Your task to perform on an android device: find which apps use the phone's location Image 0: 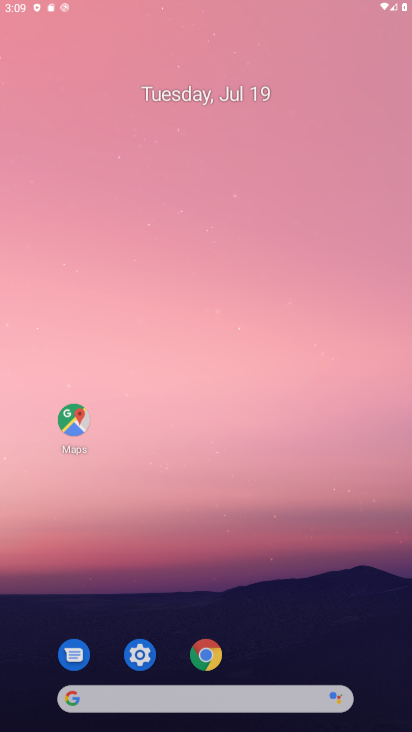
Step 0: click (190, 224)
Your task to perform on an android device: find which apps use the phone's location Image 1: 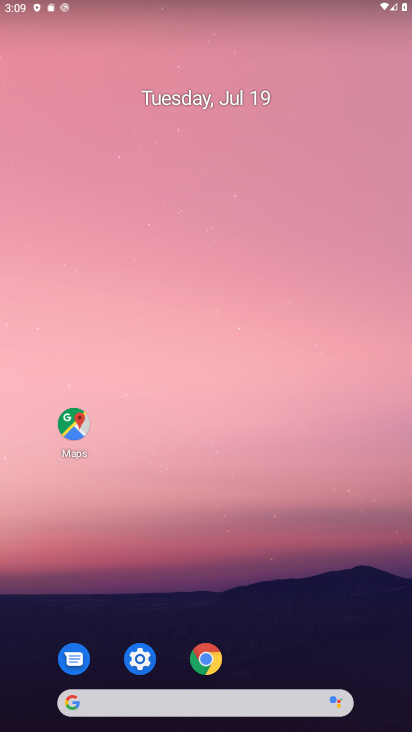
Step 1: drag from (245, 692) to (167, 254)
Your task to perform on an android device: find which apps use the phone's location Image 2: 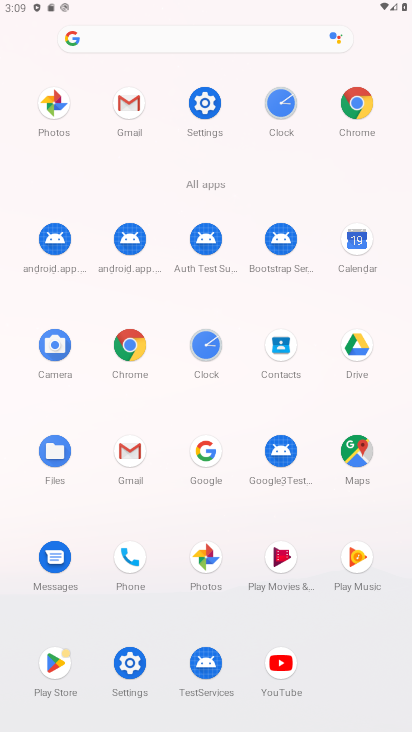
Step 2: click (203, 107)
Your task to perform on an android device: find which apps use the phone's location Image 3: 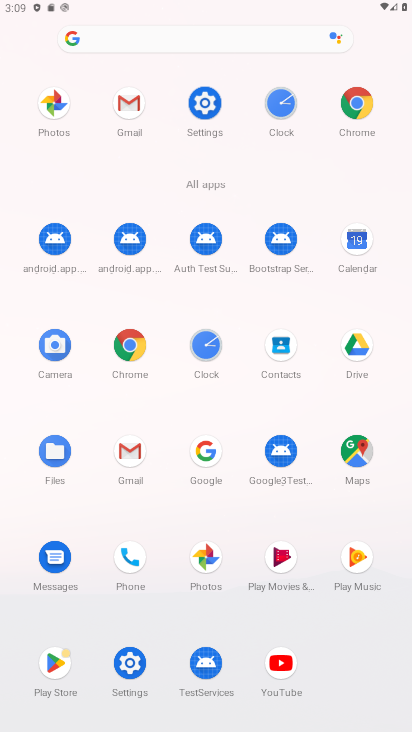
Step 3: click (199, 108)
Your task to perform on an android device: find which apps use the phone's location Image 4: 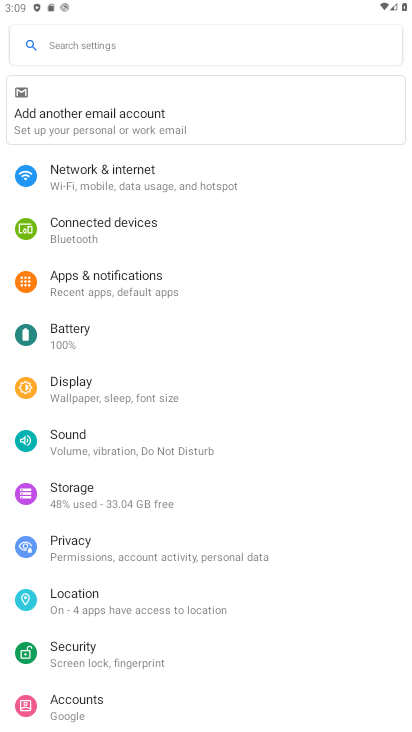
Step 4: click (74, 601)
Your task to perform on an android device: find which apps use the phone's location Image 5: 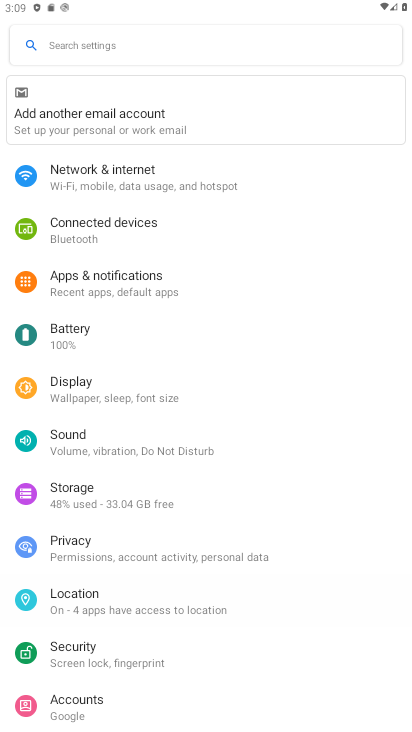
Step 5: click (90, 598)
Your task to perform on an android device: find which apps use the phone's location Image 6: 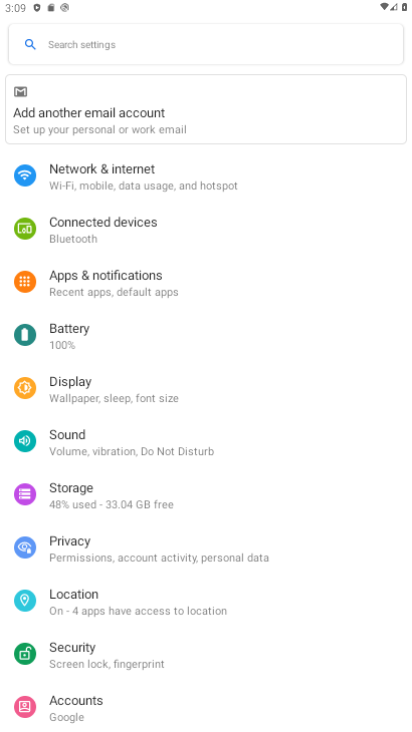
Step 6: click (94, 601)
Your task to perform on an android device: find which apps use the phone's location Image 7: 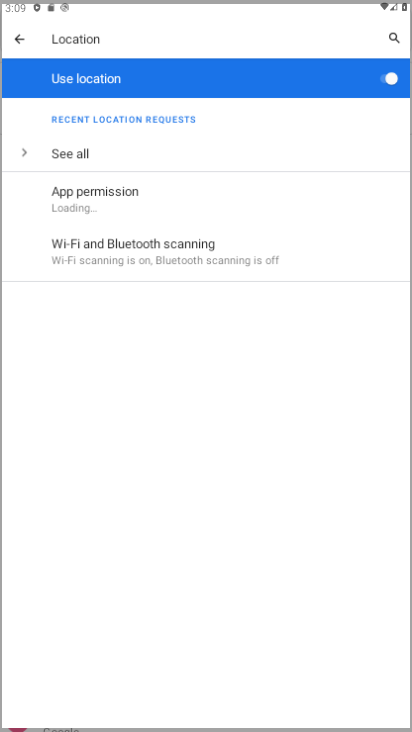
Step 7: click (110, 607)
Your task to perform on an android device: find which apps use the phone's location Image 8: 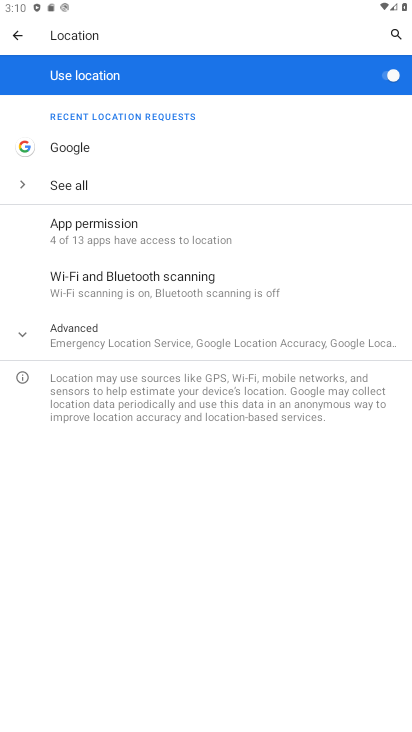
Step 8: click (85, 337)
Your task to perform on an android device: find which apps use the phone's location Image 9: 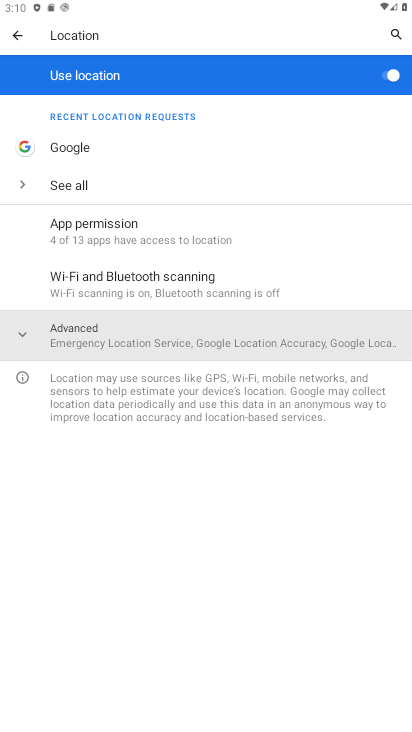
Step 9: click (83, 336)
Your task to perform on an android device: find which apps use the phone's location Image 10: 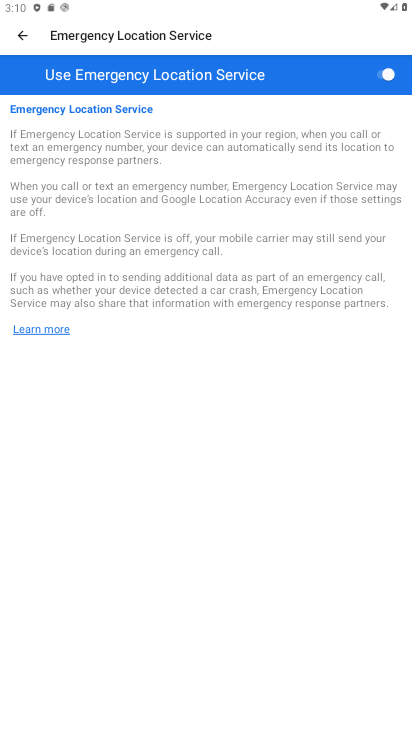
Step 10: click (17, 36)
Your task to perform on an android device: find which apps use the phone's location Image 11: 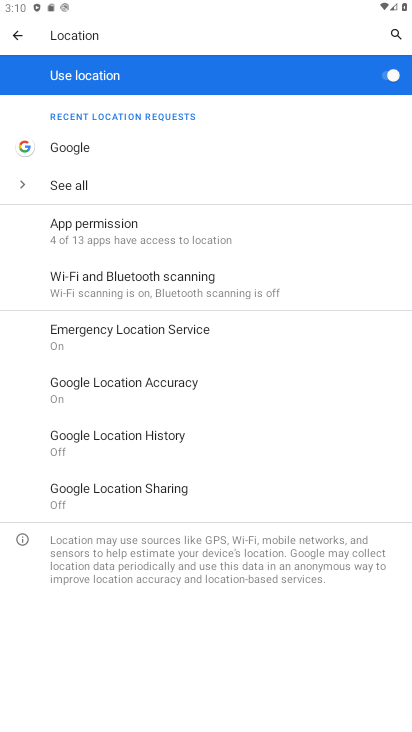
Step 11: click (64, 226)
Your task to perform on an android device: find which apps use the phone's location Image 12: 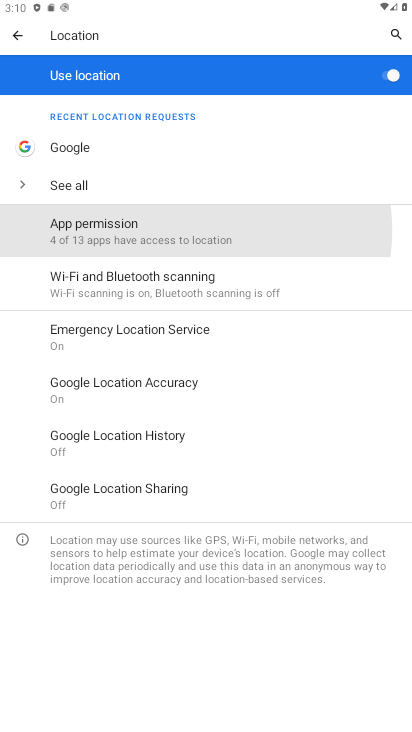
Step 12: click (69, 231)
Your task to perform on an android device: find which apps use the phone's location Image 13: 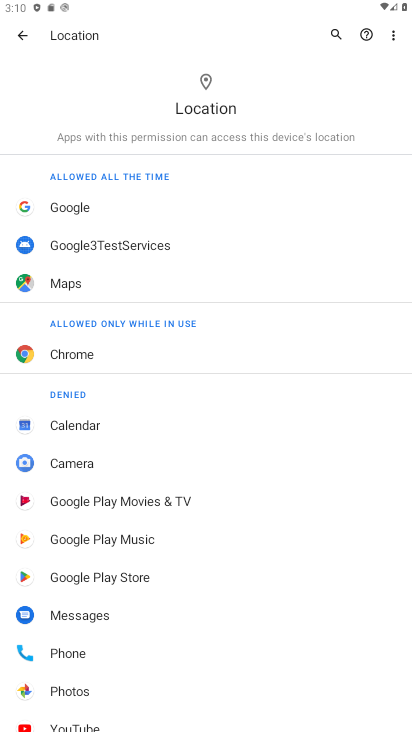
Step 13: task complete